Your task to perform on an android device: search for starred emails in the gmail app Image 0: 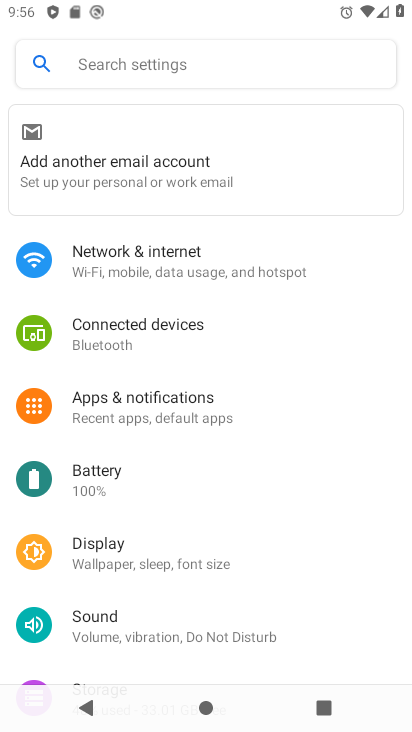
Step 0: press back button
Your task to perform on an android device: search for starred emails in the gmail app Image 1: 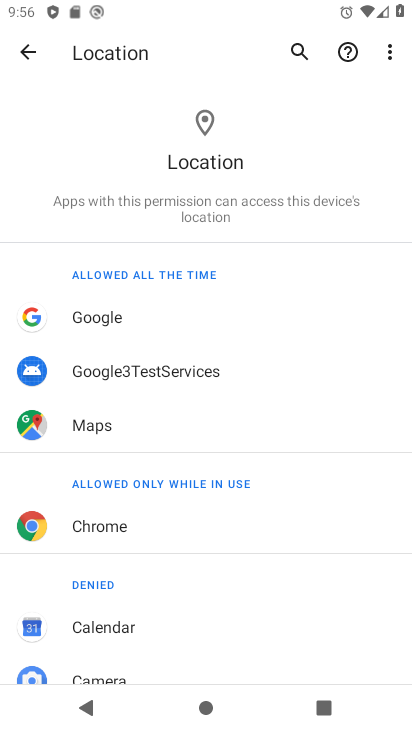
Step 1: press home button
Your task to perform on an android device: search for starred emails in the gmail app Image 2: 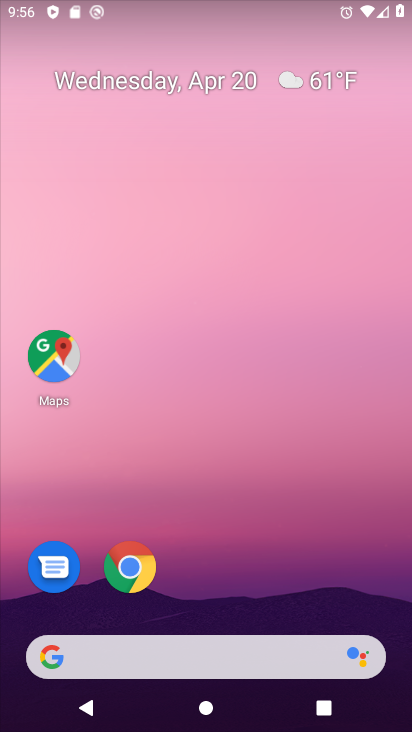
Step 2: drag from (265, 559) to (265, 90)
Your task to perform on an android device: search for starred emails in the gmail app Image 3: 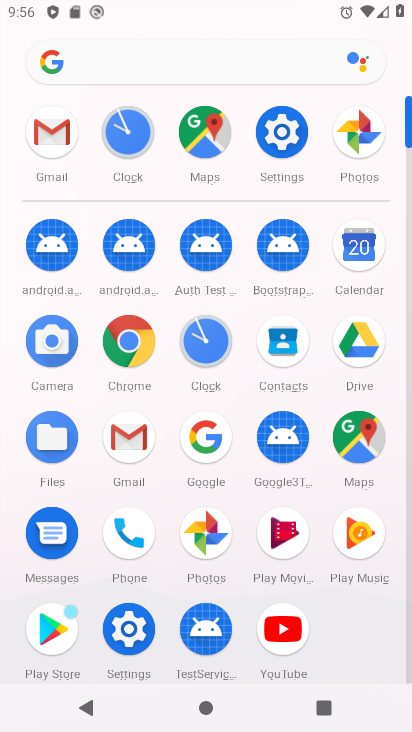
Step 3: click (138, 436)
Your task to perform on an android device: search for starred emails in the gmail app Image 4: 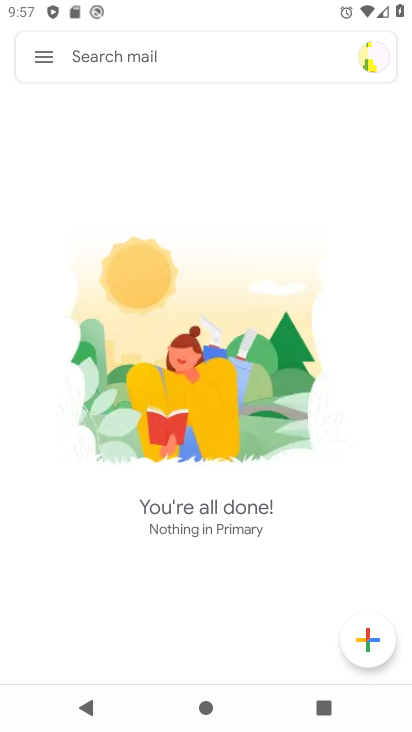
Step 4: click (37, 52)
Your task to perform on an android device: search for starred emails in the gmail app Image 5: 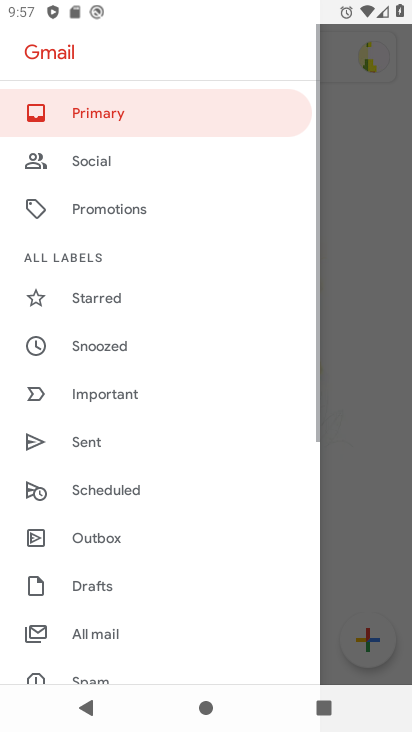
Step 5: click (94, 289)
Your task to perform on an android device: search for starred emails in the gmail app Image 6: 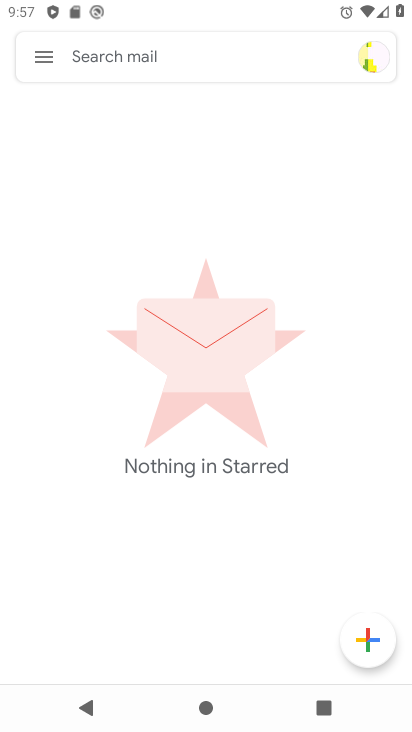
Step 6: task complete